Your task to perform on an android device: turn on translation in the chrome app Image 0: 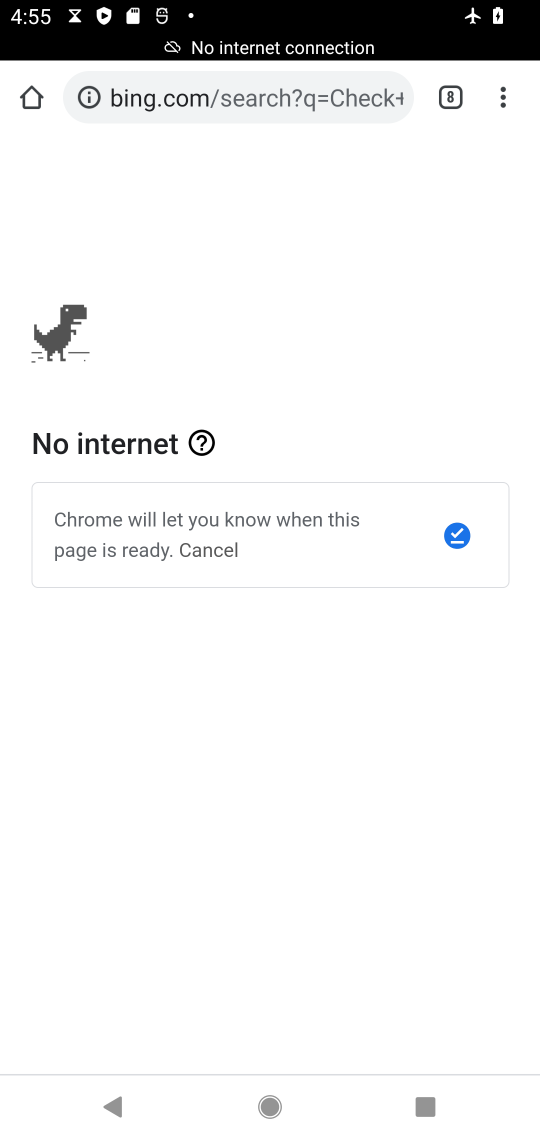
Step 0: click (523, 81)
Your task to perform on an android device: turn on translation in the chrome app Image 1: 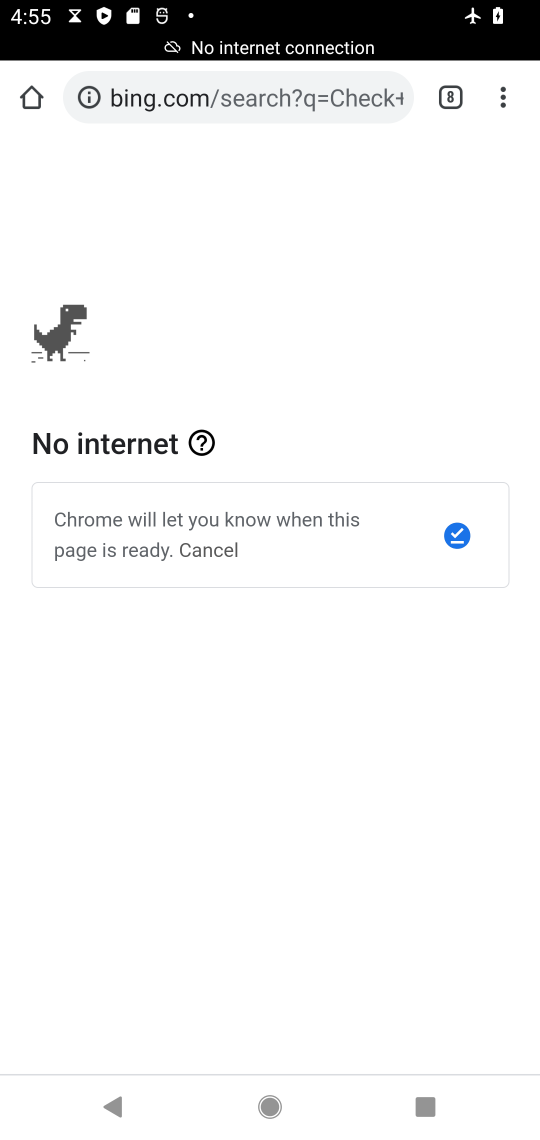
Step 1: click (499, 95)
Your task to perform on an android device: turn on translation in the chrome app Image 2: 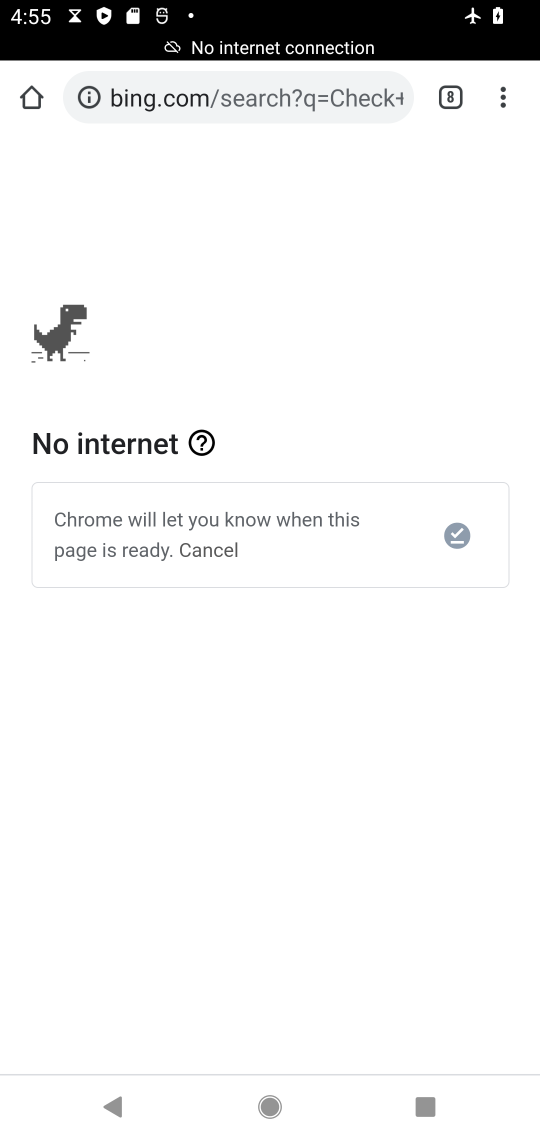
Step 2: click (499, 95)
Your task to perform on an android device: turn on translation in the chrome app Image 3: 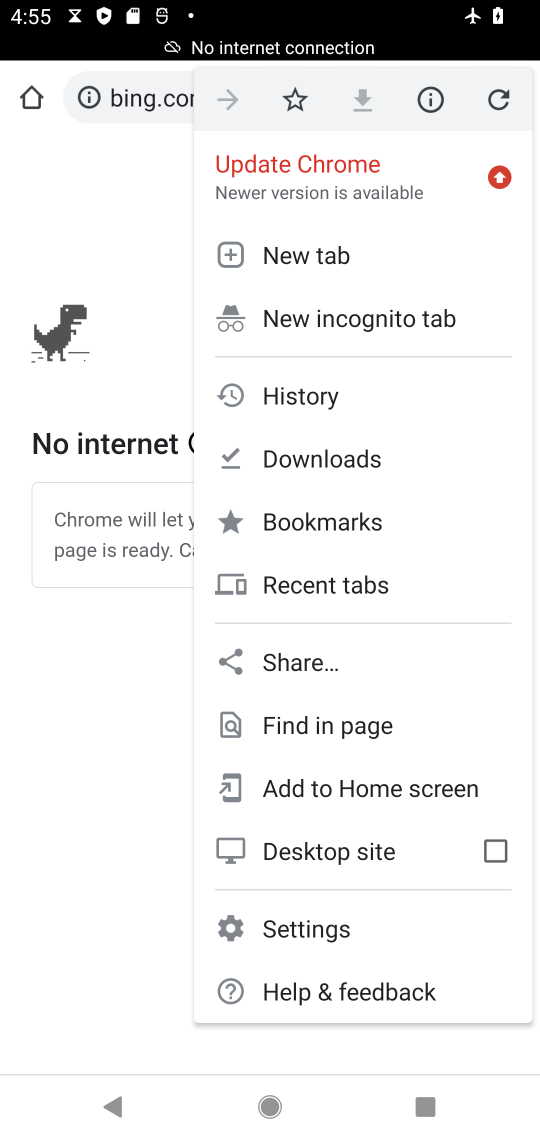
Step 3: click (339, 920)
Your task to perform on an android device: turn on translation in the chrome app Image 4: 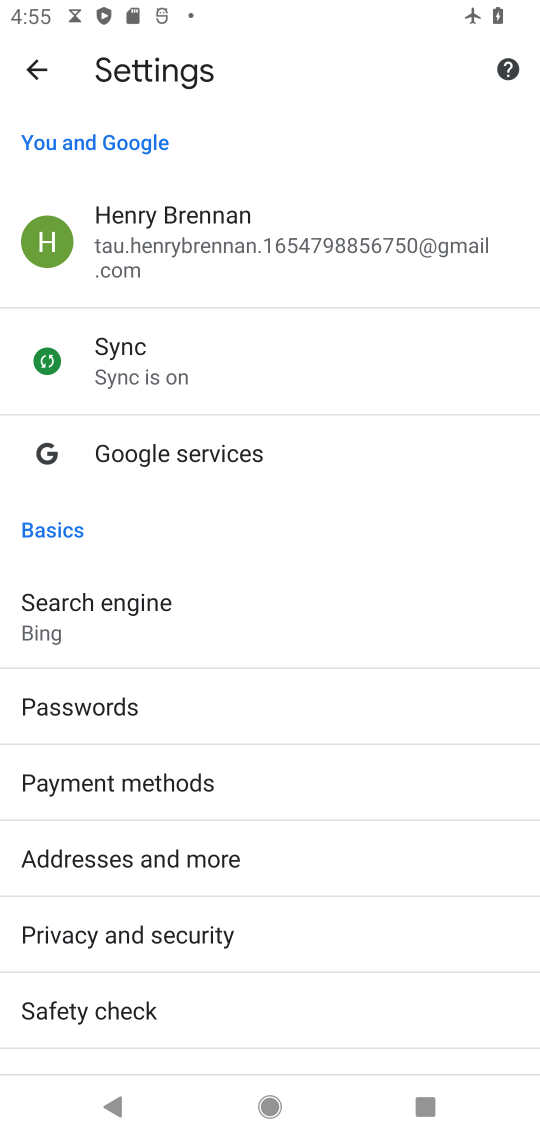
Step 4: drag from (241, 1031) to (327, 418)
Your task to perform on an android device: turn on translation in the chrome app Image 5: 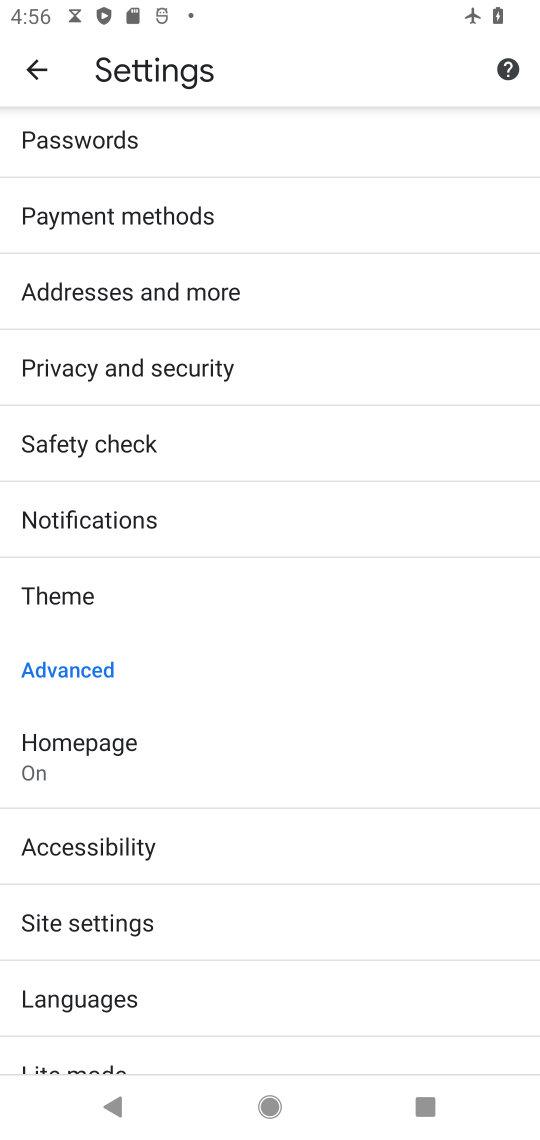
Step 5: drag from (196, 1006) to (208, 836)
Your task to perform on an android device: turn on translation in the chrome app Image 6: 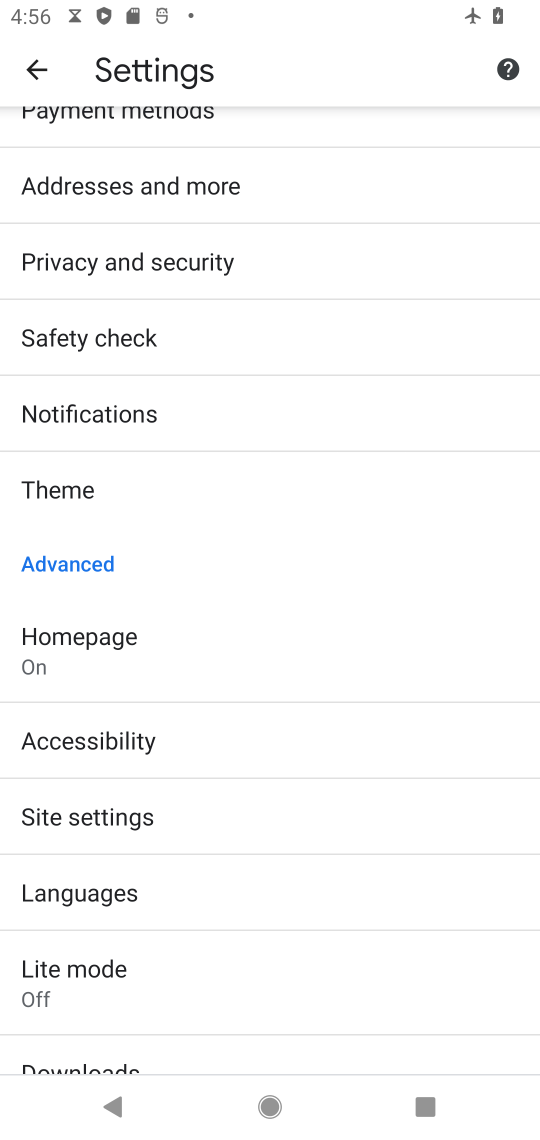
Step 6: click (208, 861)
Your task to perform on an android device: turn on translation in the chrome app Image 7: 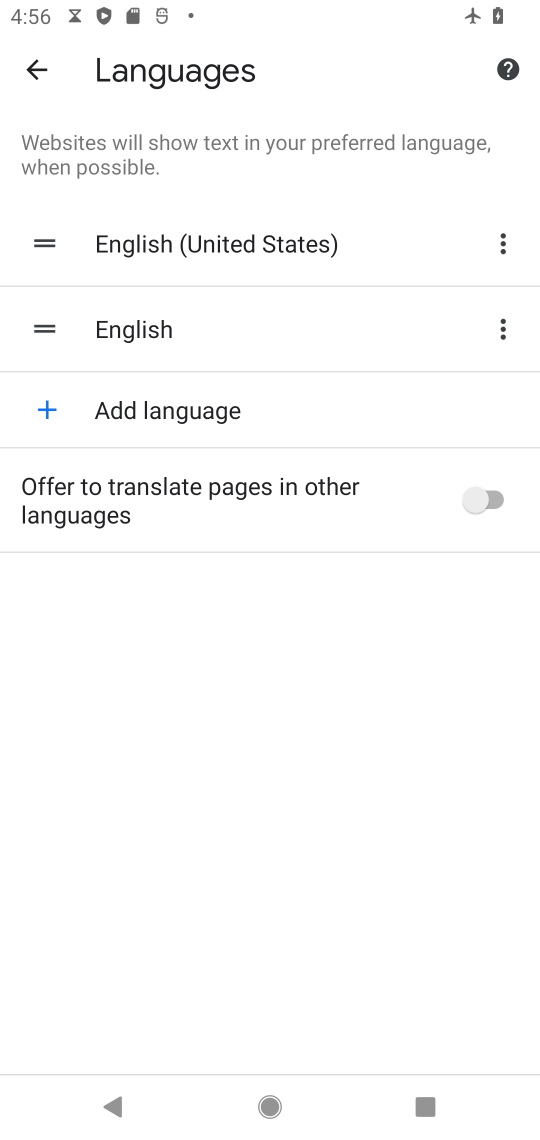
Step 7: click (503, 508)
Your task to perform on an android device: turn on translation in the chrome app Image 8: 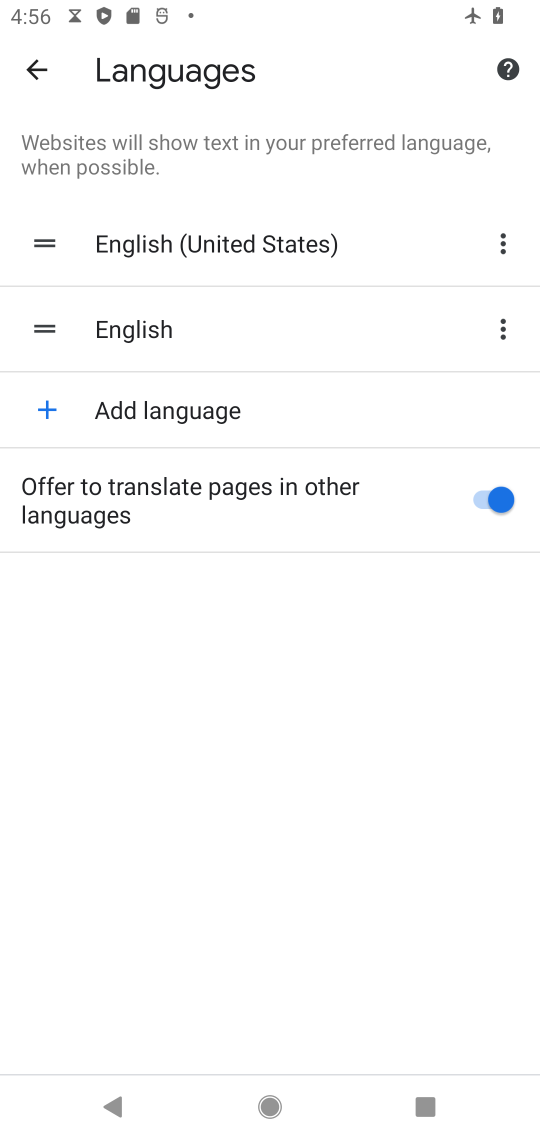
Step 8: task complete